Your task to perform on an android device: Look up the best rated drill on Lowes. Image 0: 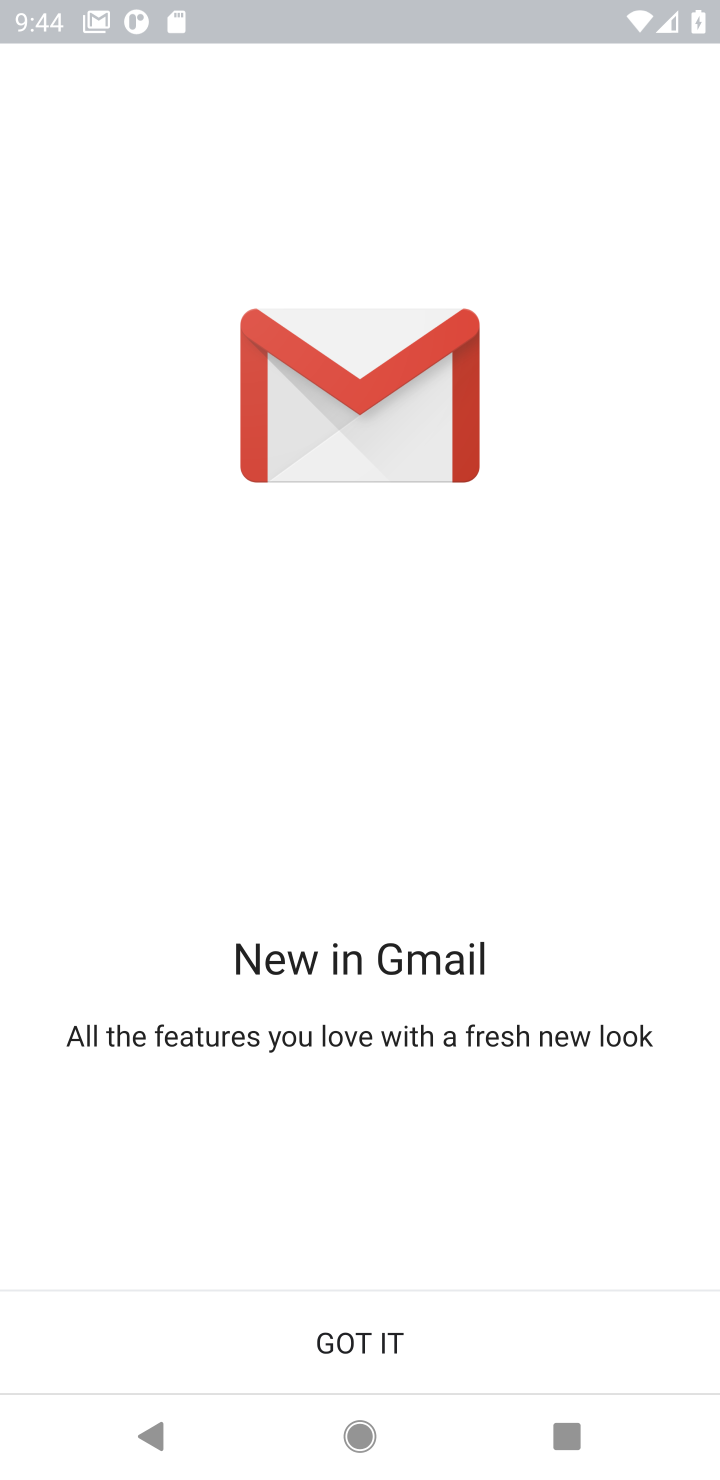
Step 0: press home button
Your task to perform on an android device: Look up the best rated drill on Lowes. Image 1: 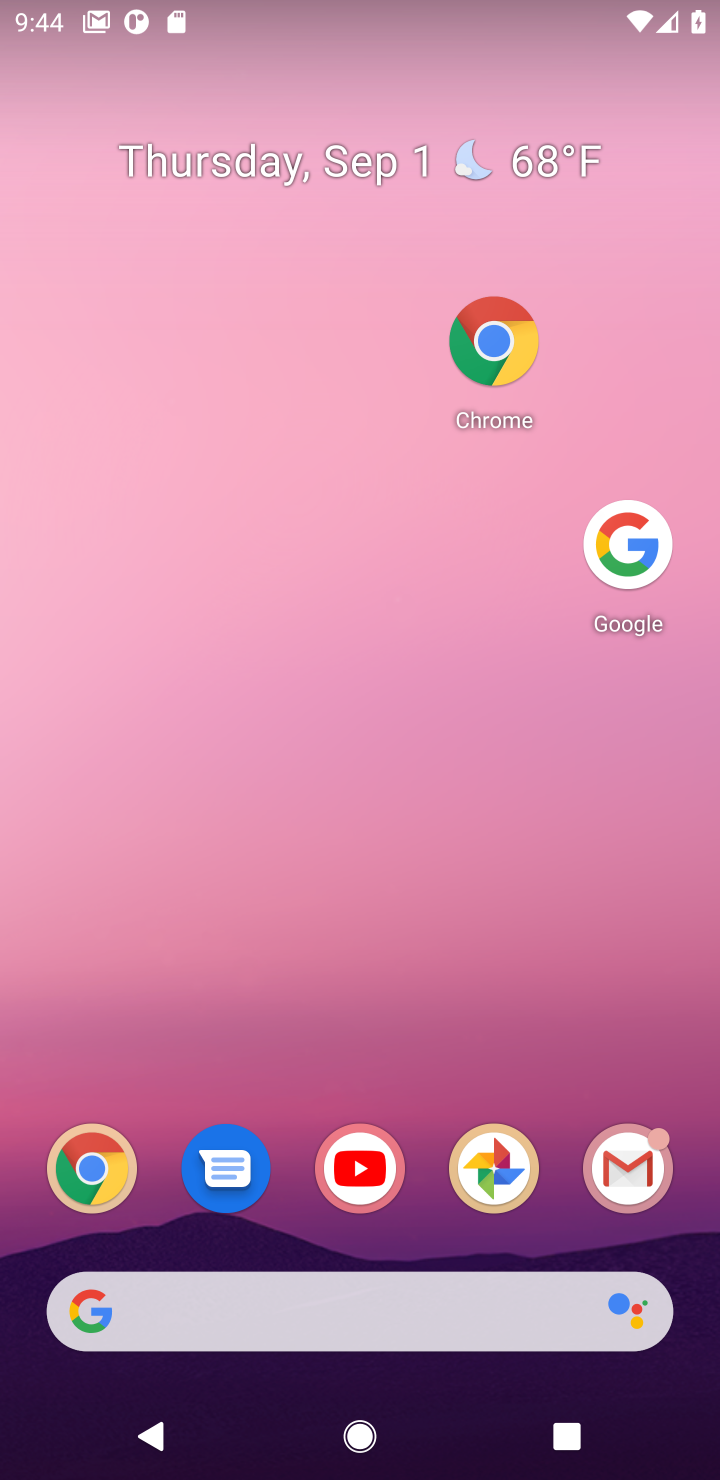
Step 1: click (605, 531)
Your task to perform on an android device: Look up the best rated drill on Lowes. Image 2: 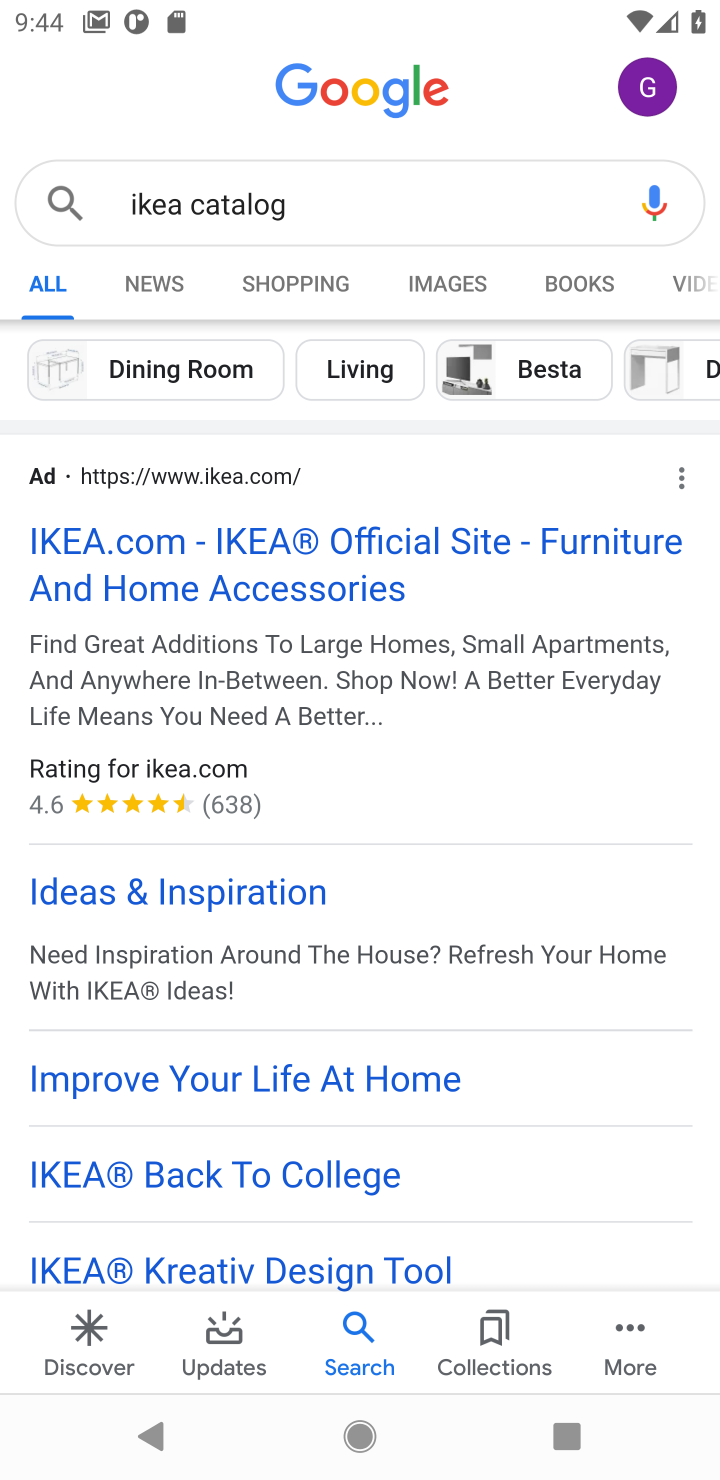
Step 2: click (353, 206)
Your task to perform on an android device: Look up the best rated drill on Lowes. Image 3: 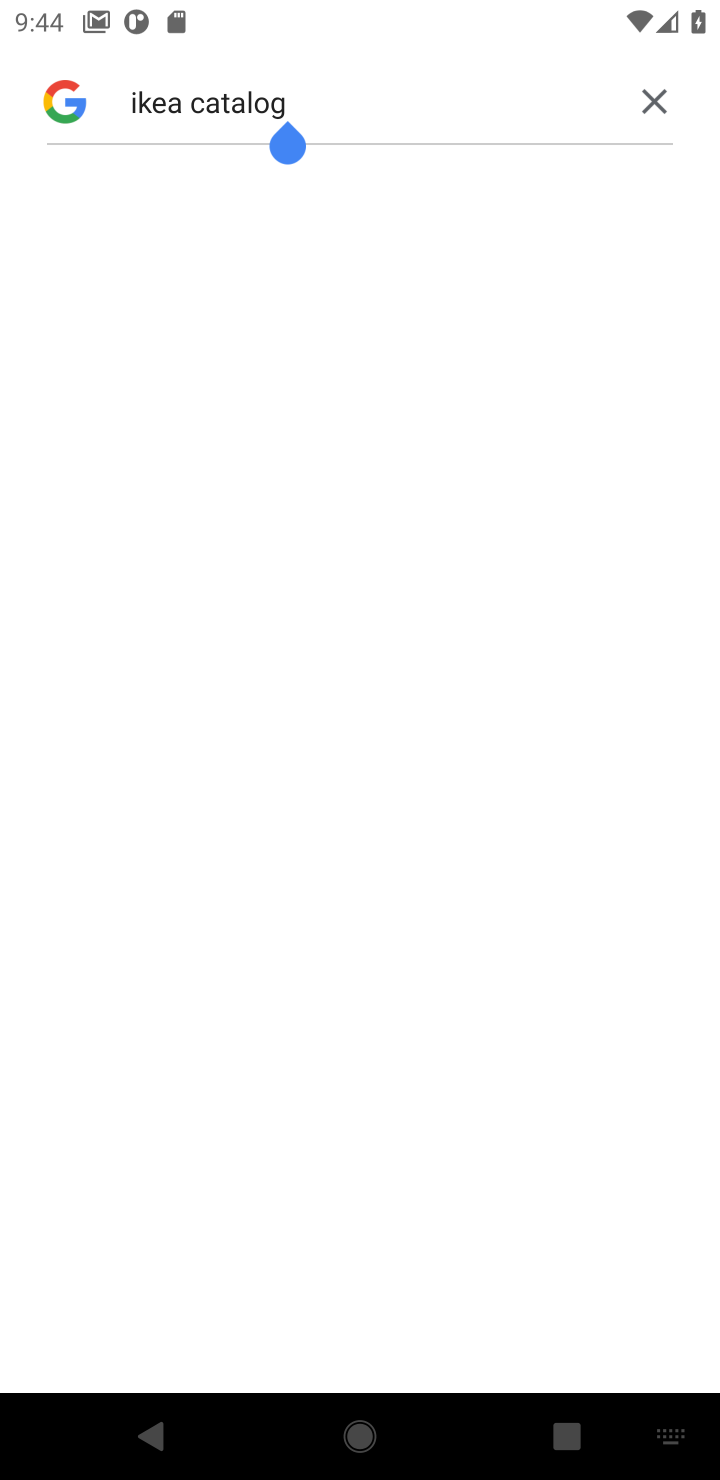
Step 3: click (653, 81)
Your task to perform on an android device: Look up the best rated drill on Lowes. Image 4: 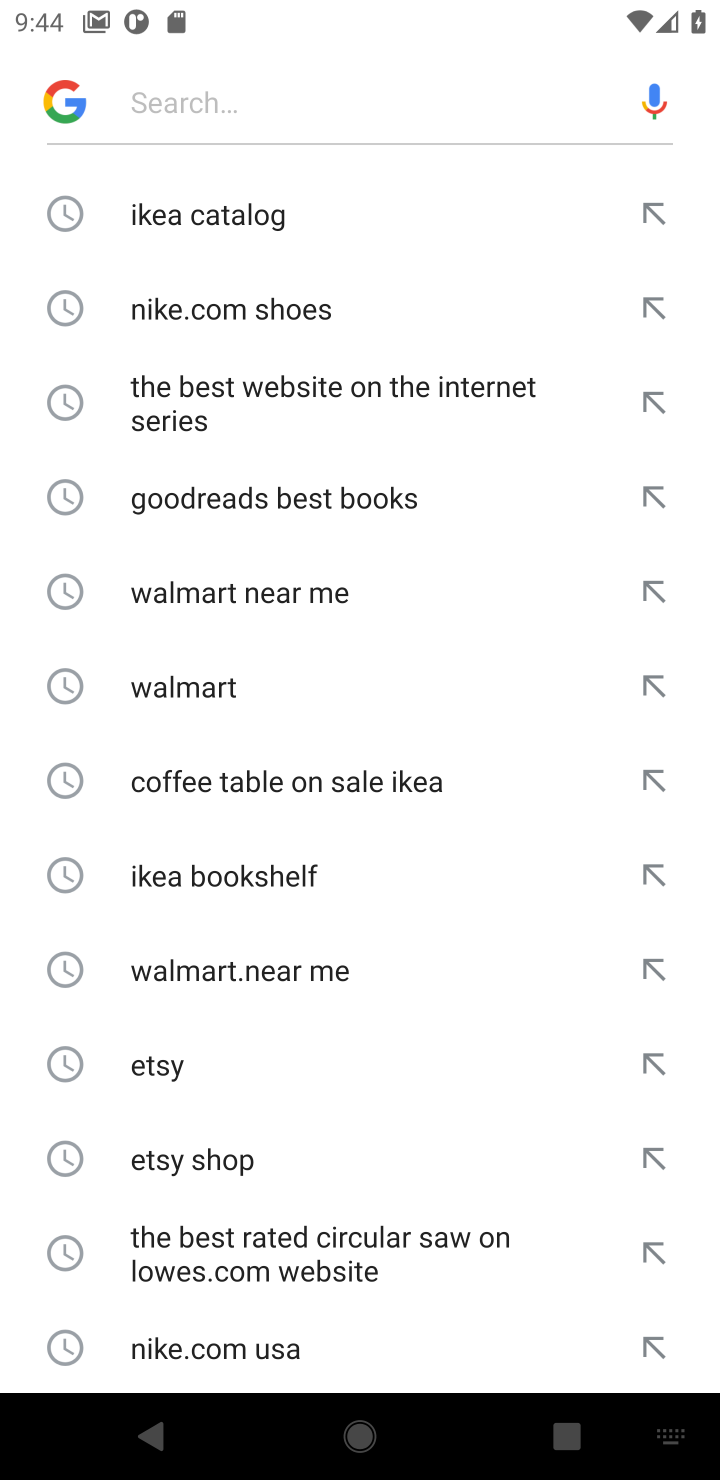
Step 4: click (375, 114)
Your task to perform on an android device: Look up the best rated drill on Lowes. Image 5: 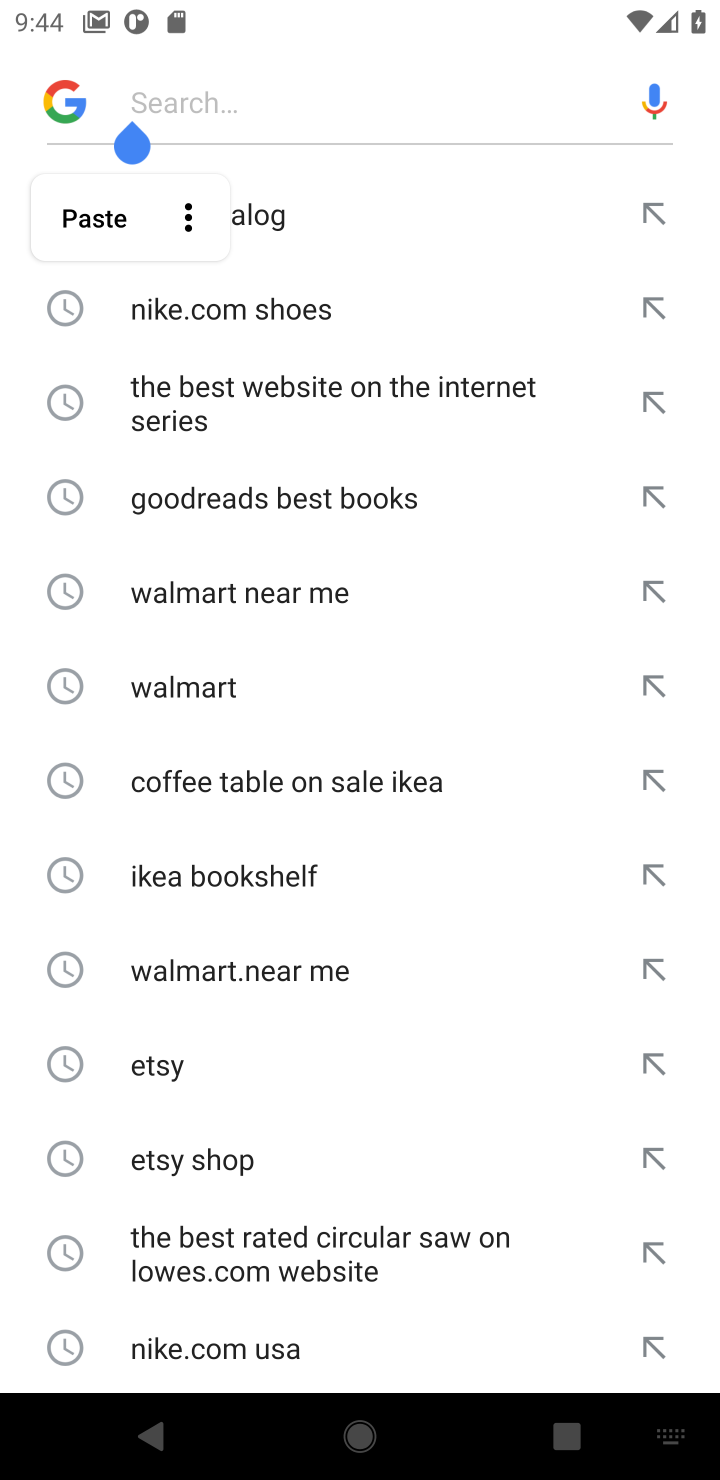
Step 5: type " the best rated drill on Lowes. "
Your task to perform on an android device: Look up the best rated drill on Lowes. Image 6: 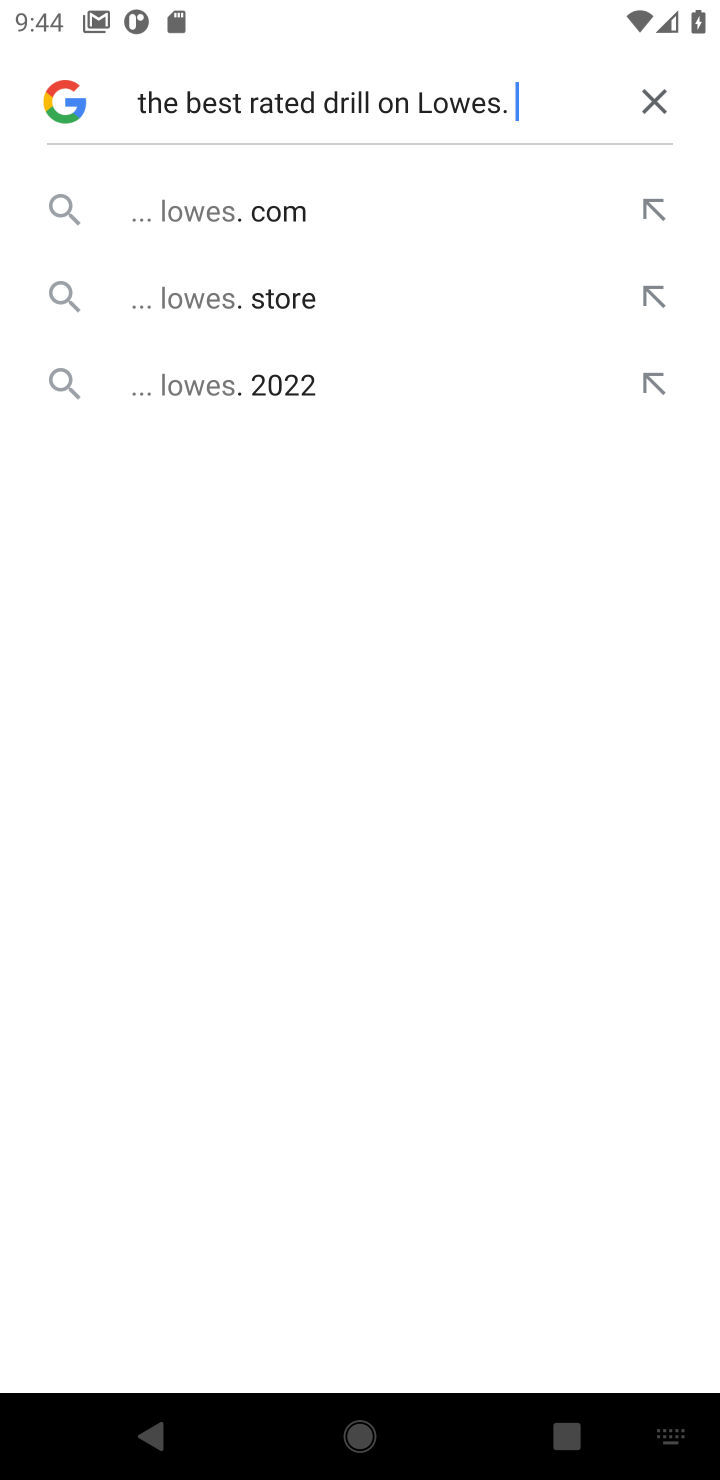
Step 6: click (273, 200)
Your task to perform on an android device: Look up the best rated drill on Lowes. Image 7: 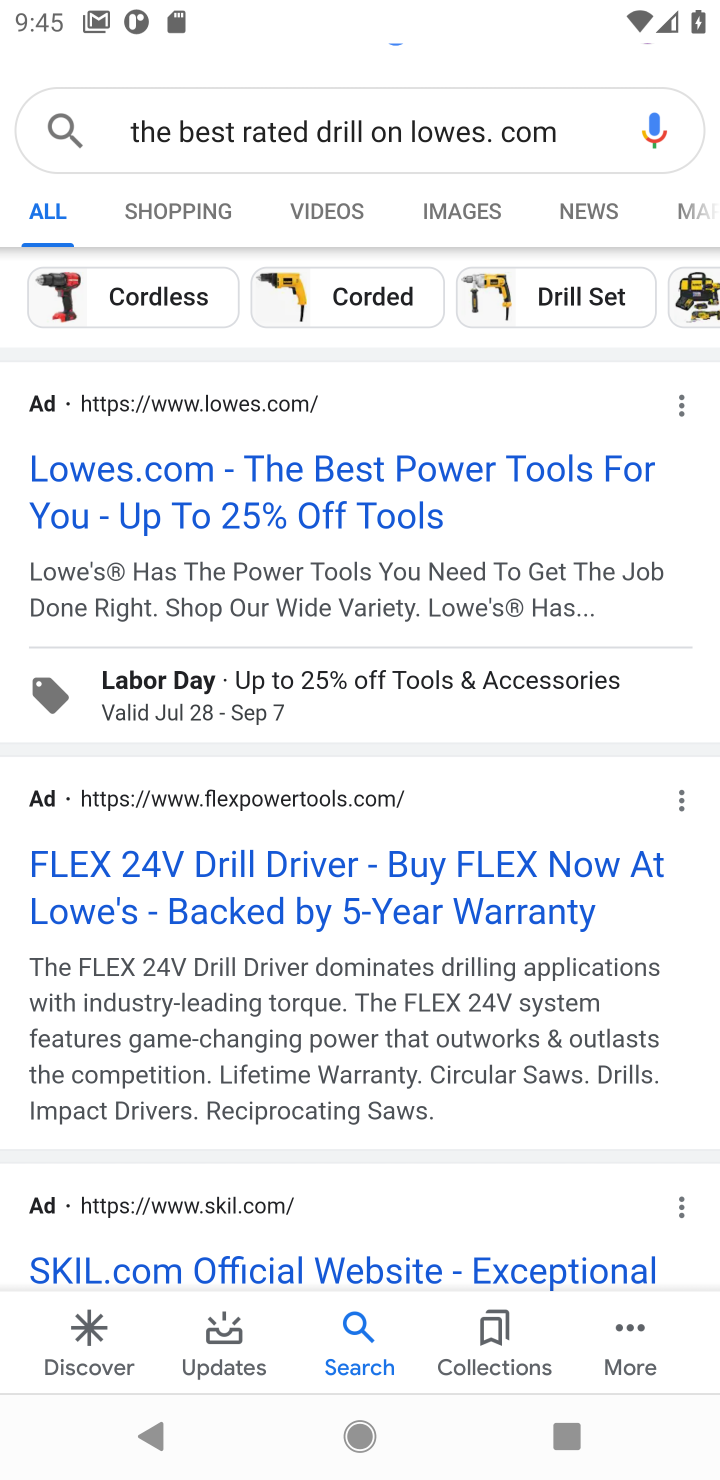
Step 7: click (288, 467)
Your task to perform on an android device: Look up the best rated drill on Lowes. Image 8: 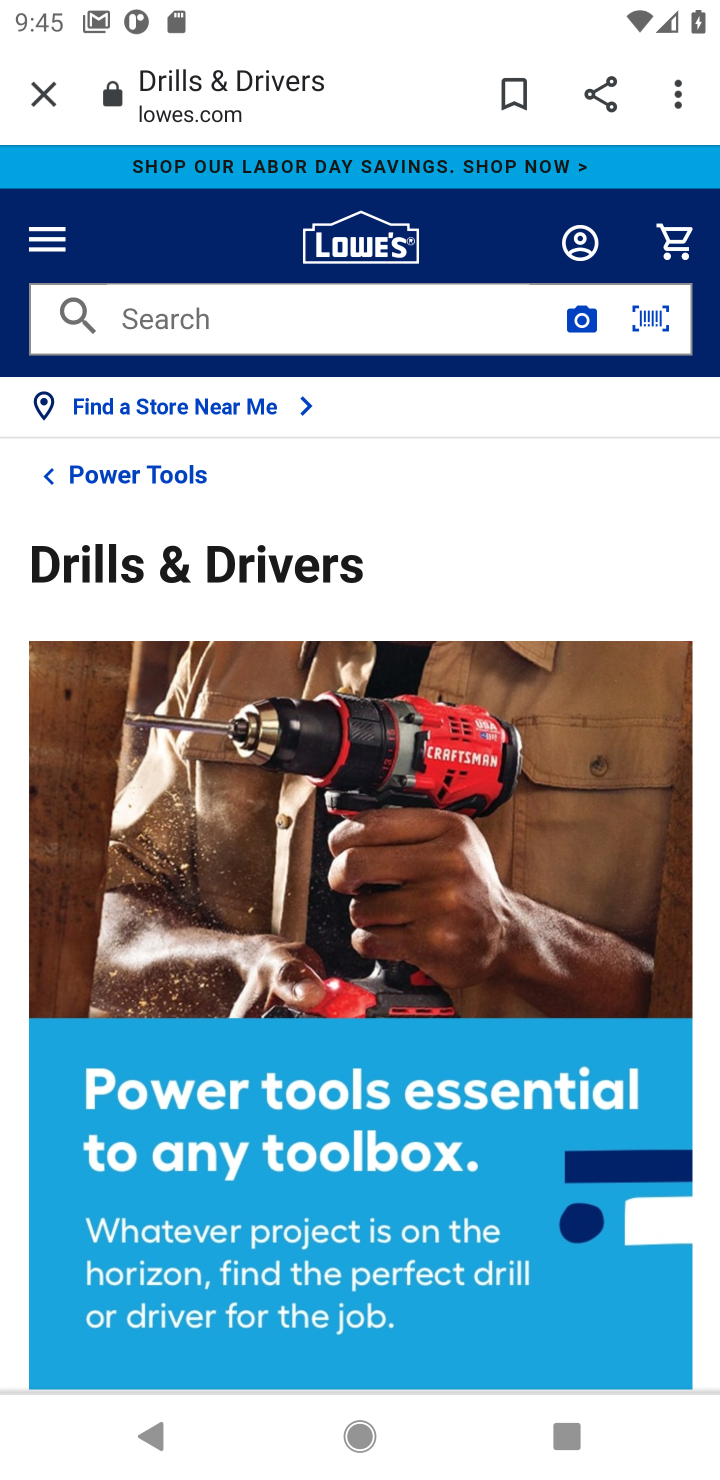
Step 8: click (210, 300)
Your task to perform on an android device: Look up the best rated drill on Lowes. Image 9: 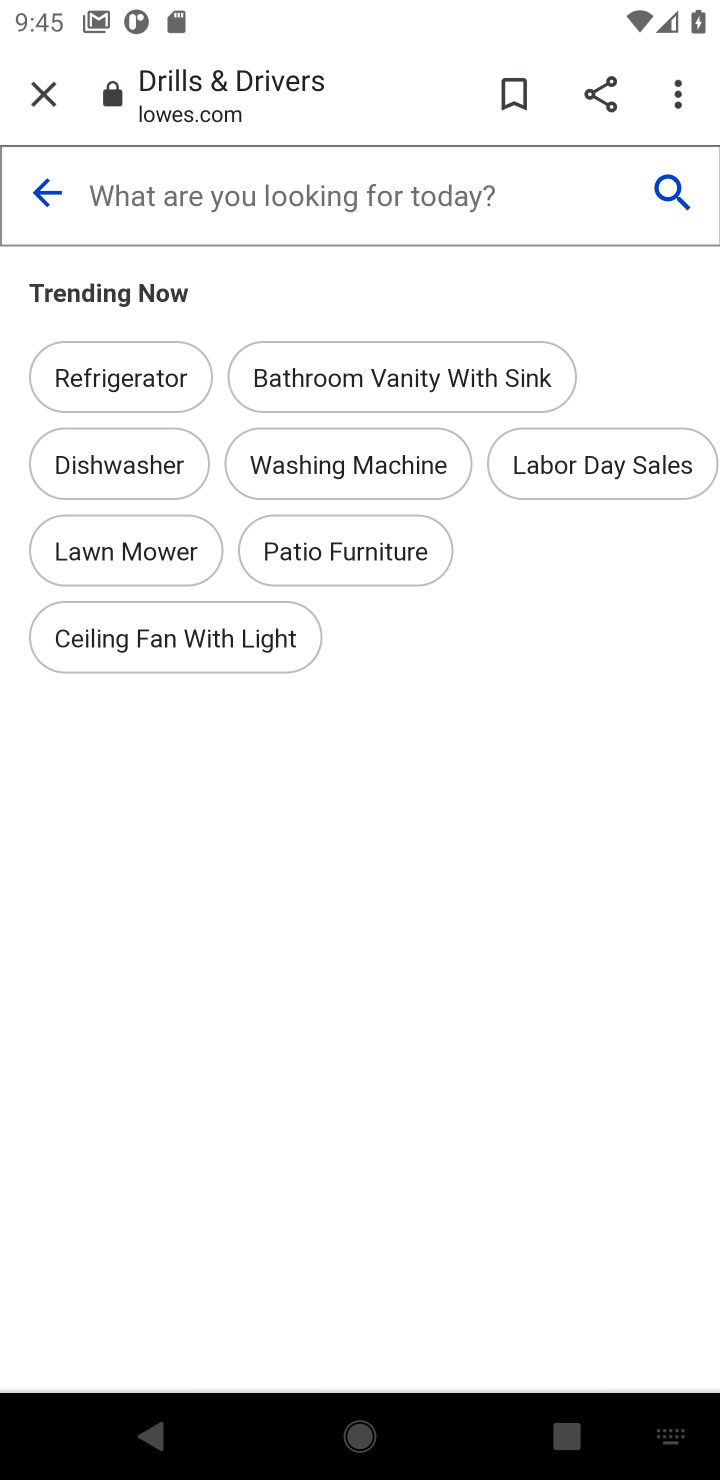
Step 9: type "drill  "
Your task to perform on an android device: Look up the best rated drill on Lowes. Image 10: 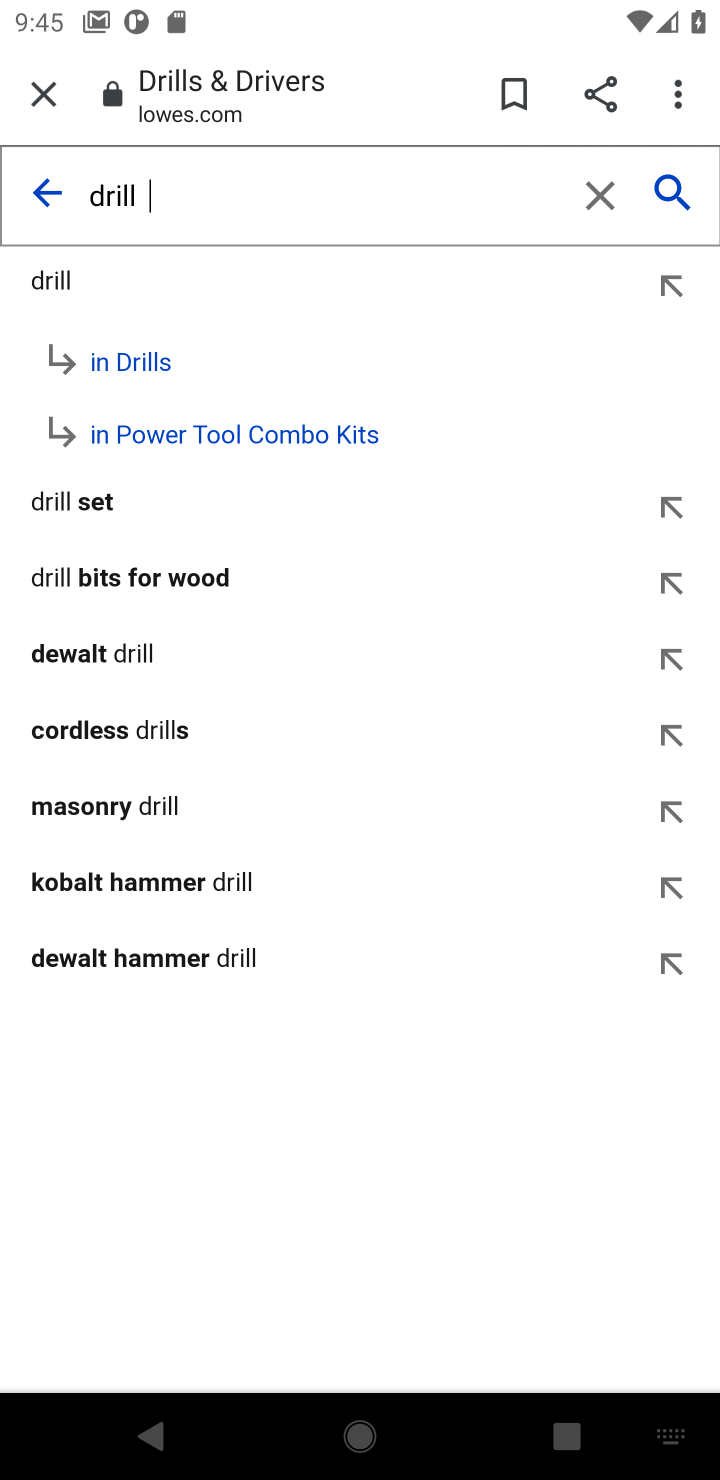
Step 10: click (102, 371)
Your task to perform on an android device: Look up the best rated drill on Lowes. Image 11: 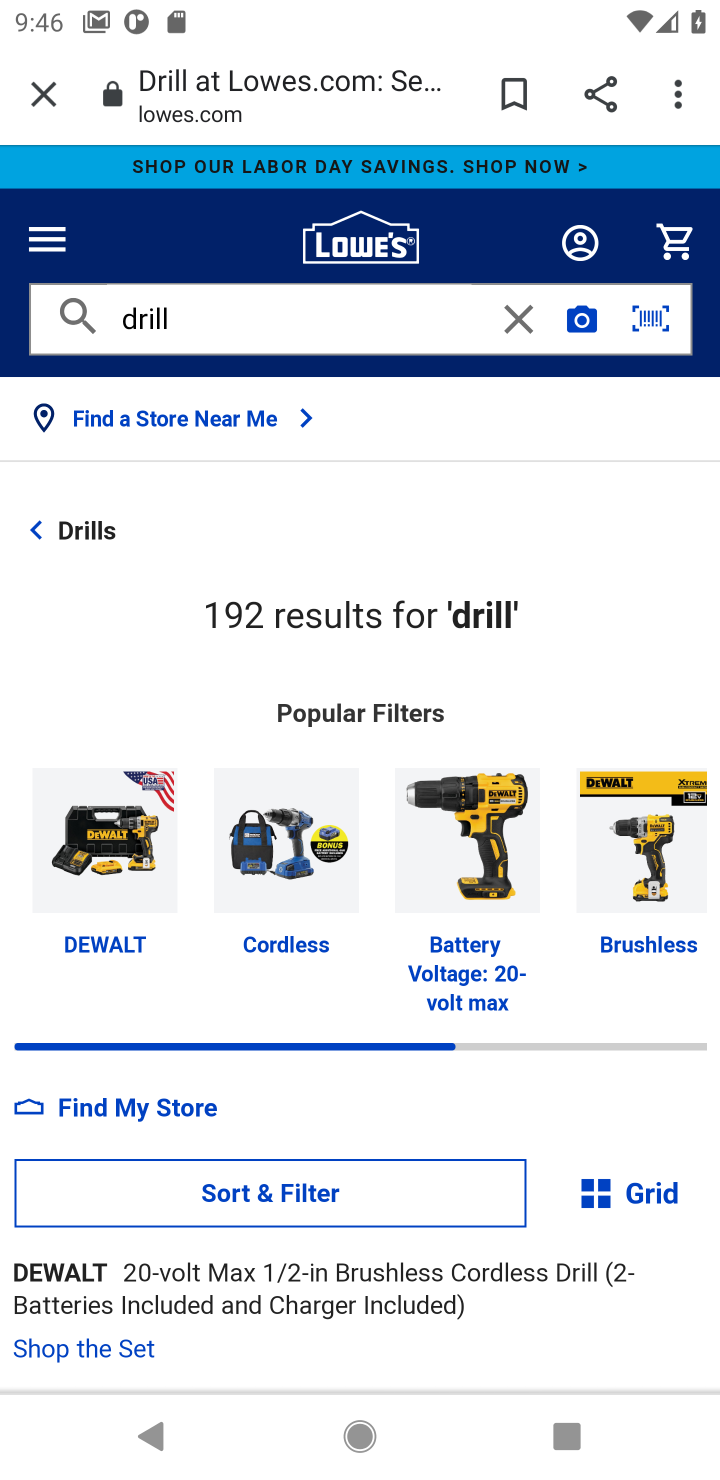
Step 11: drag from (417, 779) to (446, 261)
Your task to perform on an android device: Look up the best rated drill on Lowes. Image 12: 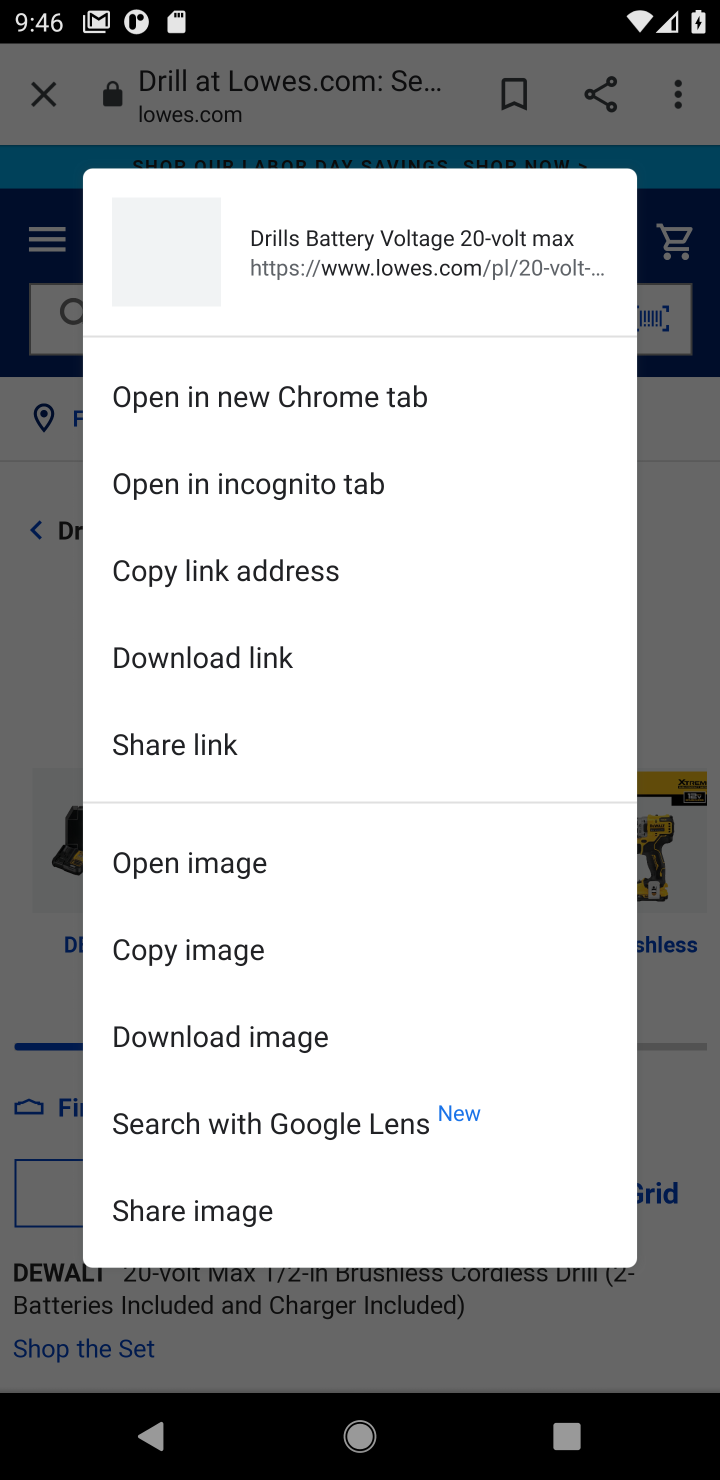
Step 12: drag from (605, 820) to (685, 990)
Your task to perform on an android device: Look up the best rated drill on Lowes. Image 13: 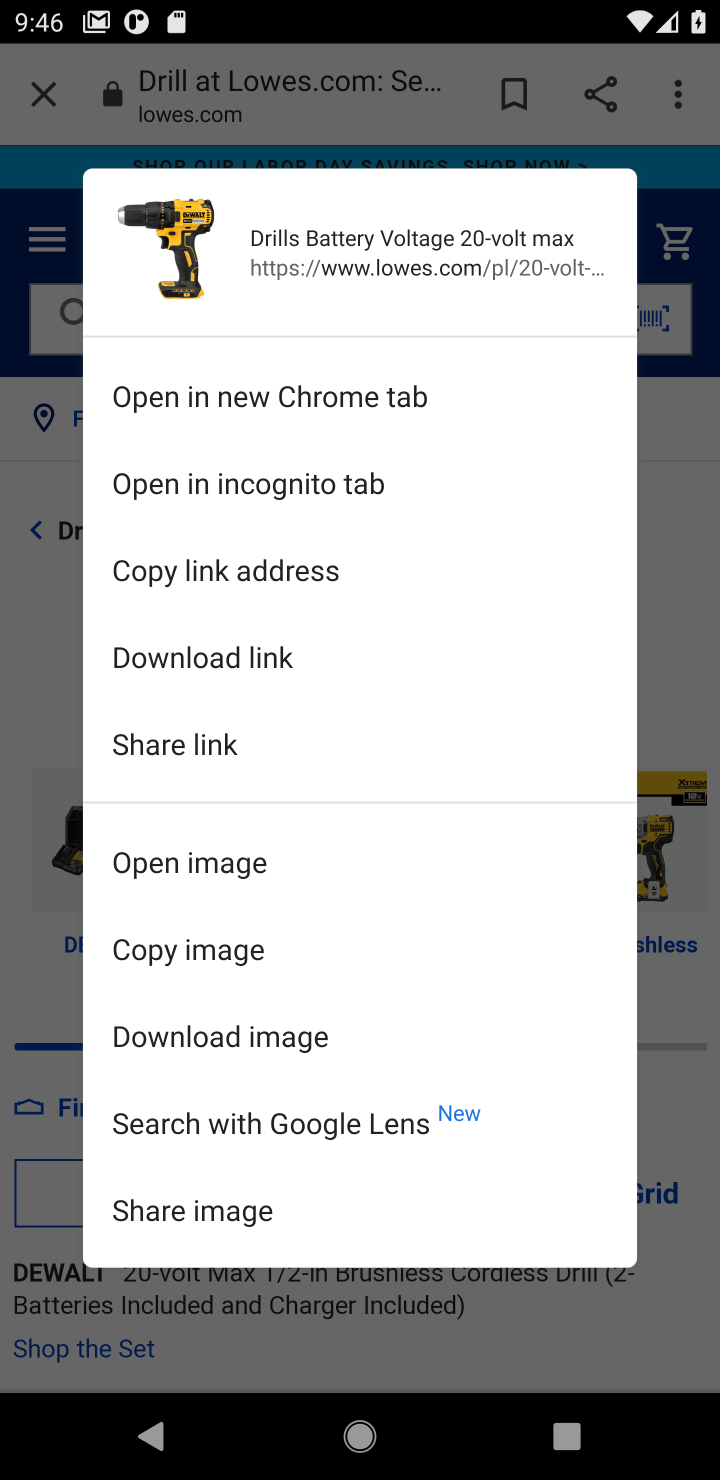
Step 13: click (36, 722)
Your task to perform on an android device: Look up the best rated drill on Lowes. Image 14: 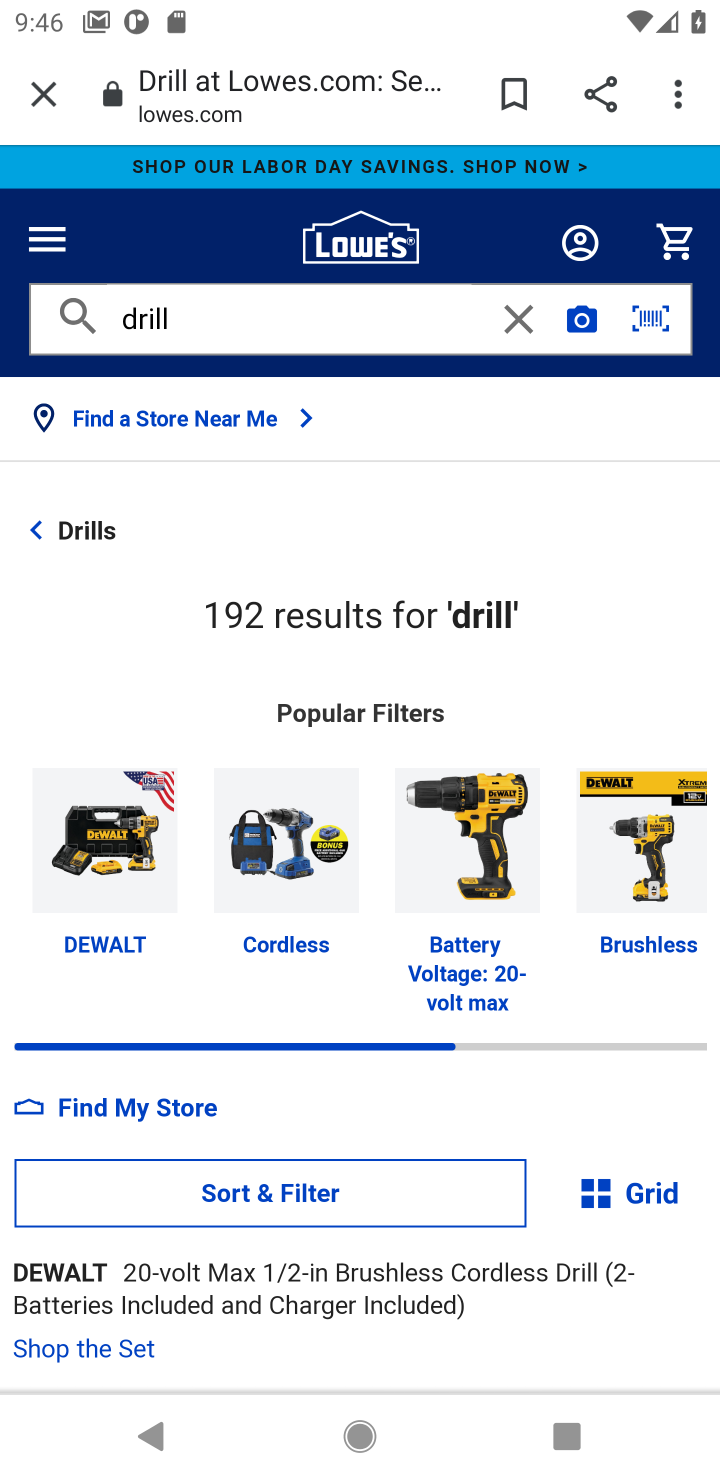
Step 14: task complete